Your task to perform on an android device: What's the weather today? Image 0: 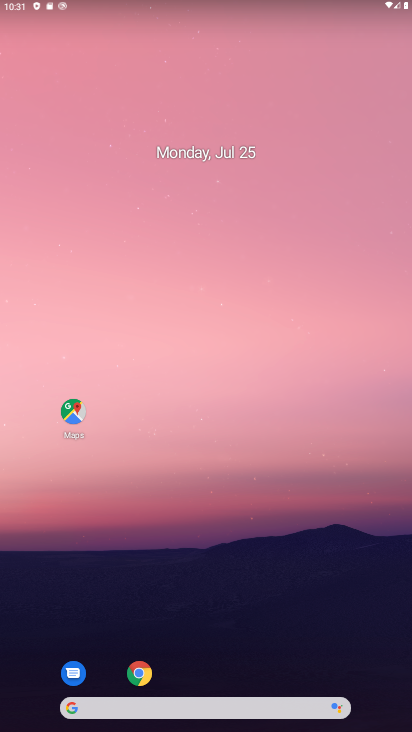
Step 0: click (199, 706)
Your task to perform on an android device: What's the weather today? Image 1: 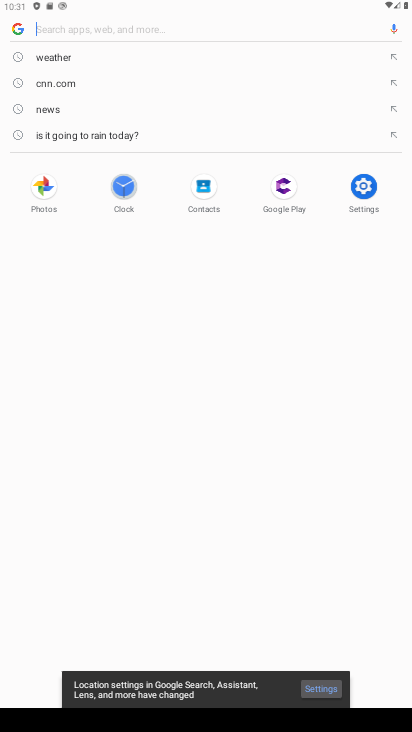
Step 1: click (65, 59)
Your task to perform on an android device: What's the weather today? Image 2: 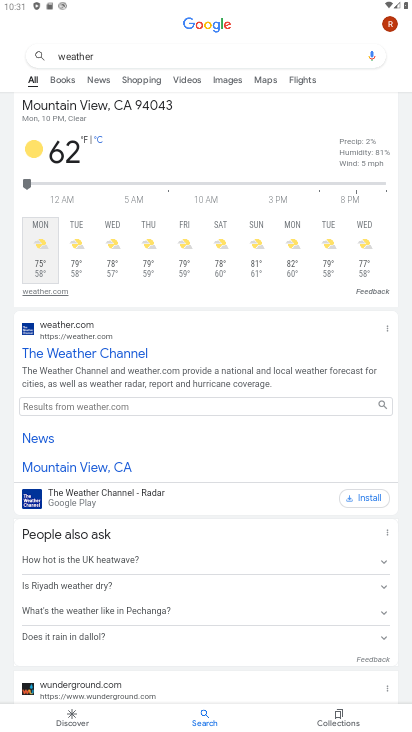
Step 2: click (33, 246)
Your task to perform on an android device: What's the weather today? Image 3: 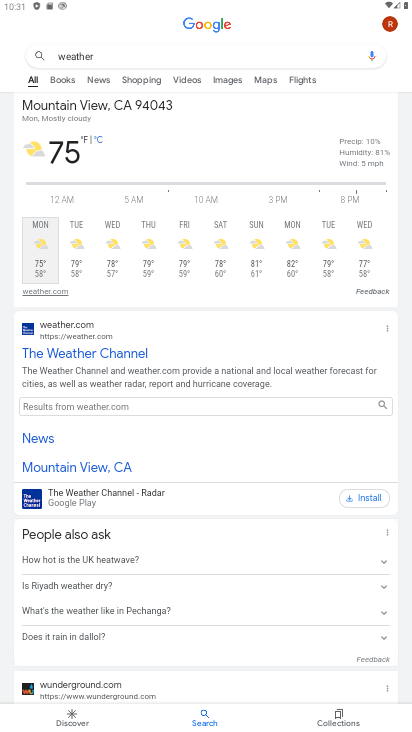
Step 3: task complete